Your task to perform on an android device: What's on my calendar tomorrow? Image 0: 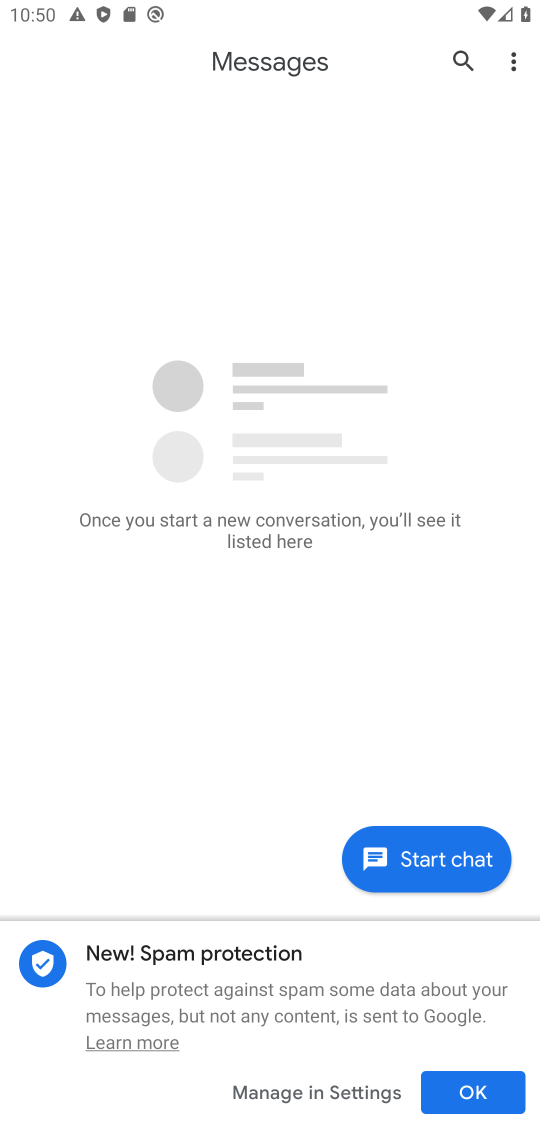
Step 0: press back button
Your task to perform on an android device: What's on my calendar tomorrow? Image 1: 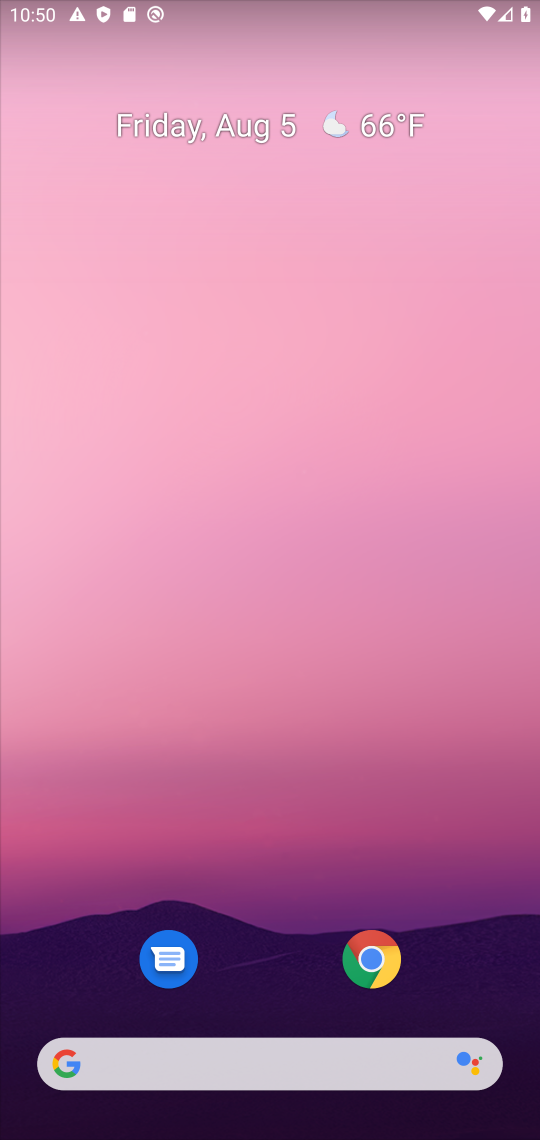
Step 1: drag from (267, 1058) to (334, 333)
Your task to perform on an android device: What's on my calendar tomorrow? Image 2: 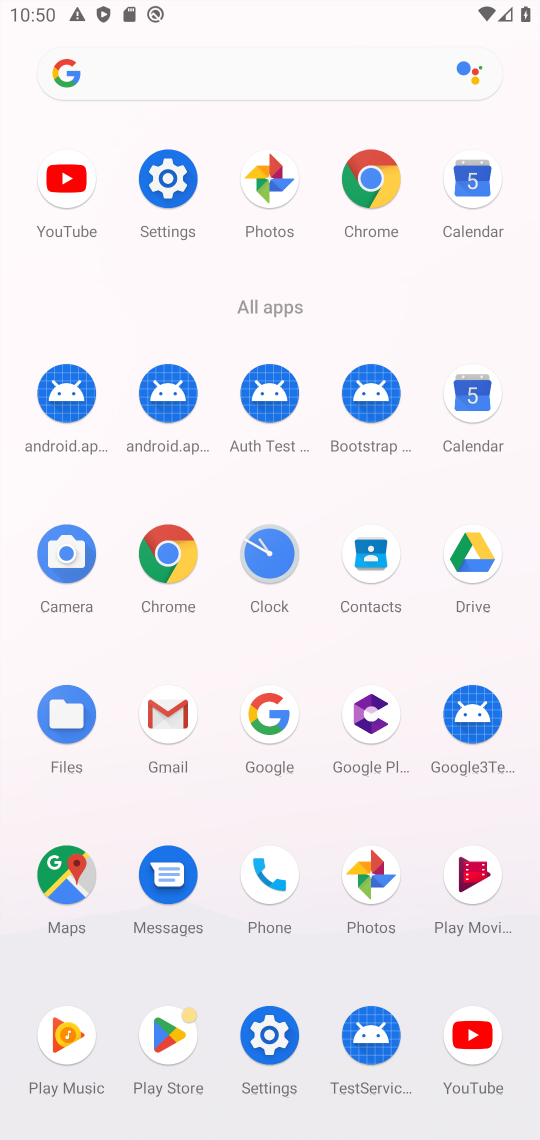
Step 2: click (467, 398)
Your task to perform on an android device: What's on my calendar tomorrow? Image 3: 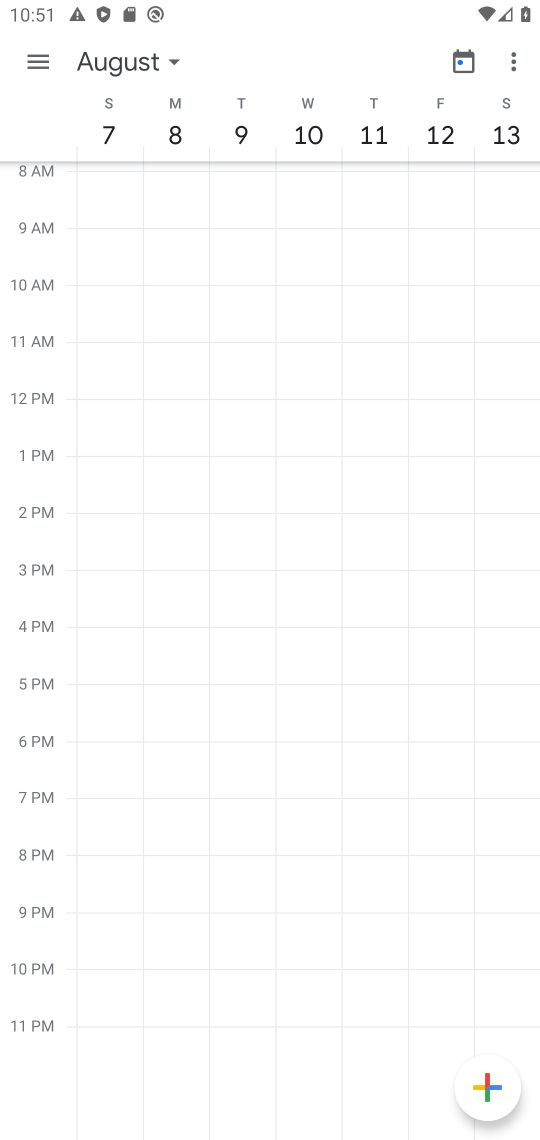
Step 3: drag from (112, 541) to (538, 567)
Your task to perform on an android device: What's on my calendar tomorrow? Image 4: 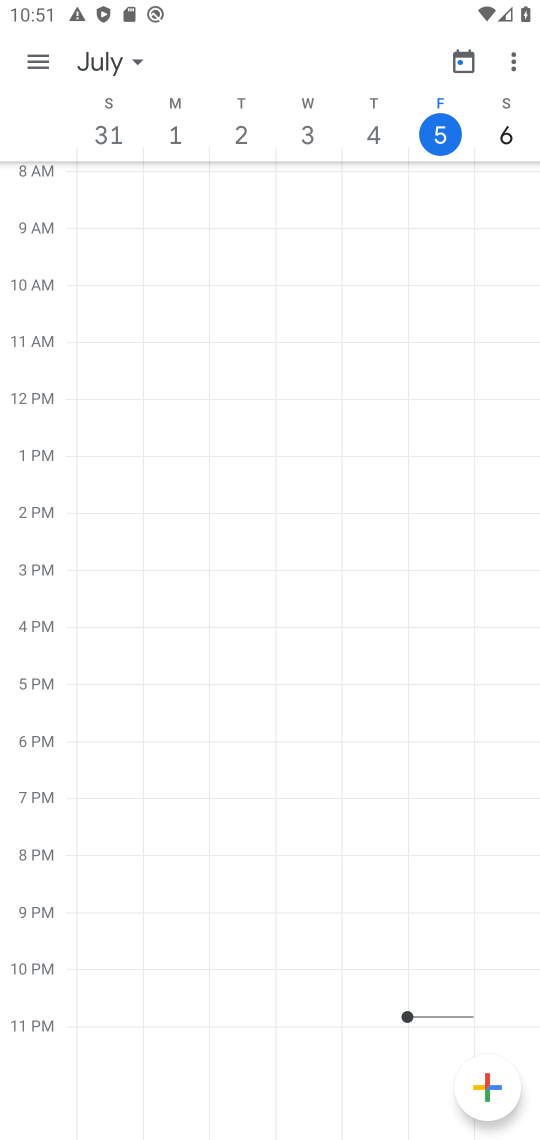
Step 4: click (506, 129)
Your task to perform on an android device: What's on my calendar tomorrow? Image 5: 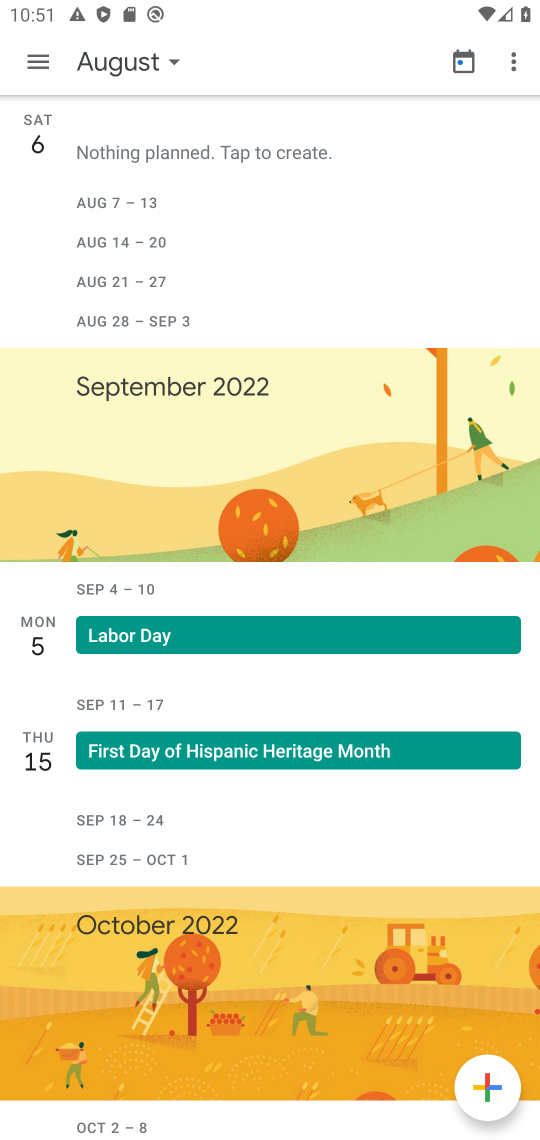
Step 5: task complete